Your task to perform on an android device: manage bookmarks in the chrome app Image 0: 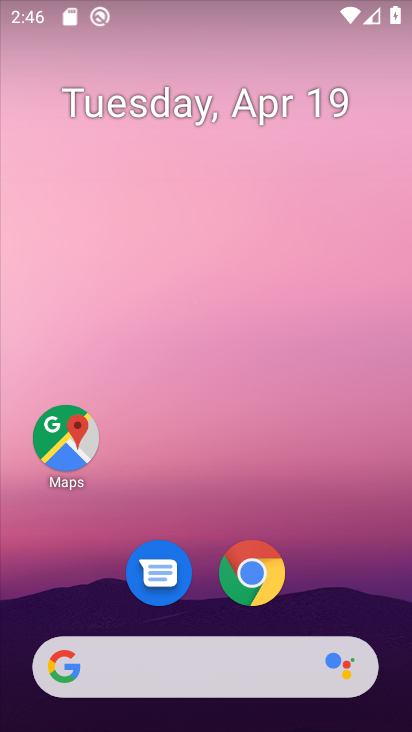
Step 0: click (251, 578)
Your task to perform on an android device: manage bookmarks in the chrome app Image 1: 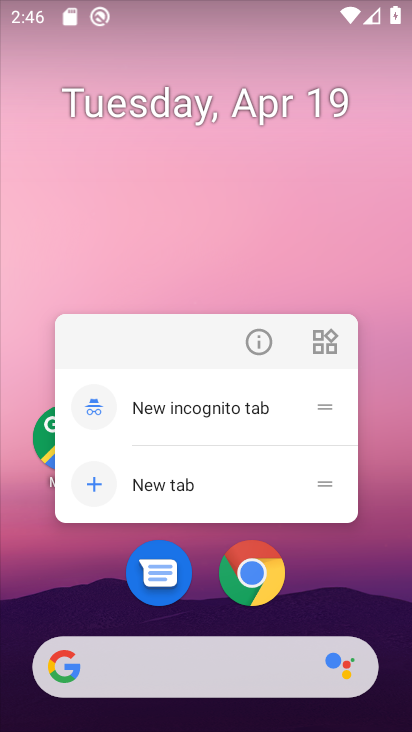
Step 1: click (252, 589)
Your task to perform on an android device: manage bookmarks in the chrome app Image 2: 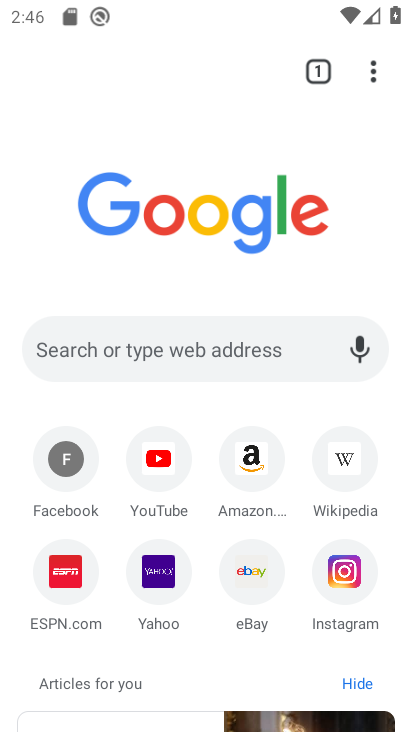
Step 2: click (384, 85)
Your task to perform on an android device: manage bookmarks in the chrome app Image 3: 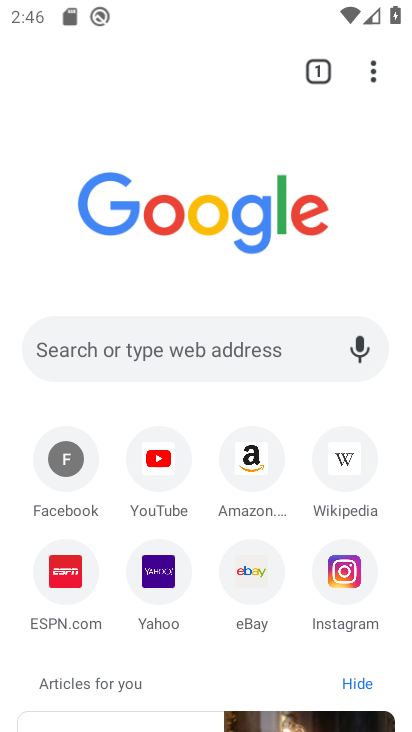
Step 3: task complete